Your task to perform on an android device: toggle data saver in the chrome app Image 0: 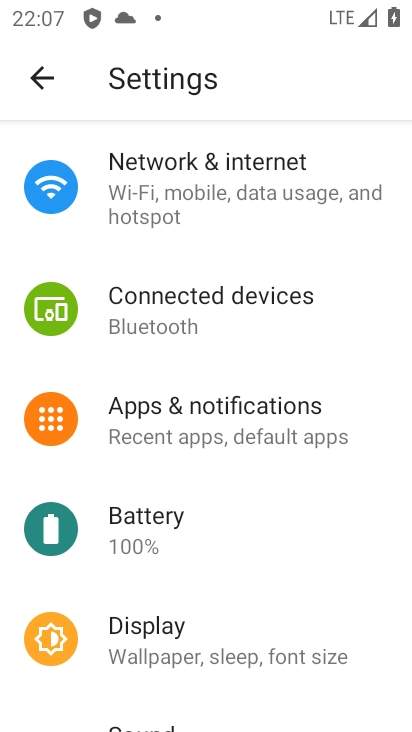
Step 0: press home button
Your task to perform on an android device: toggle data saver in the chrome app Image 1: 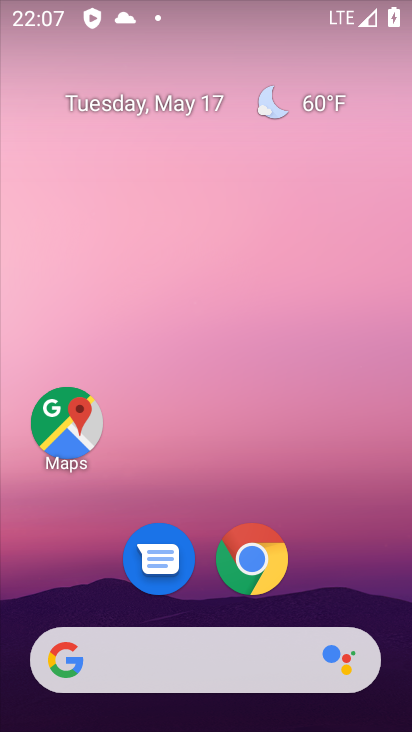
Step 1: click (243, 551)
Your task to perform on an android device: toggle data saver in the chrome app Image 2: 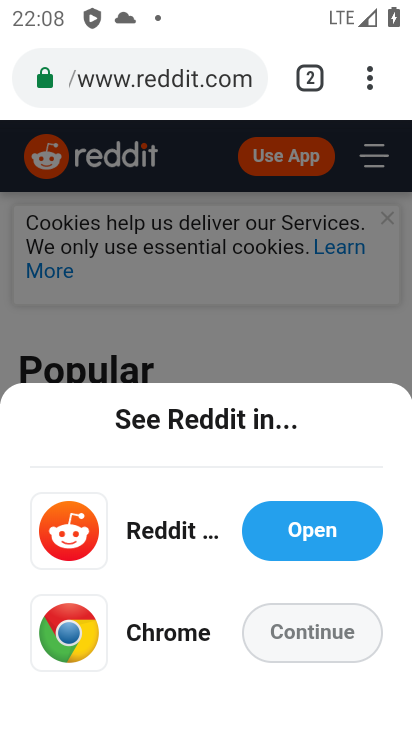
Step 2: drag from (366, 77) to (198, 626)
Your task to perform on an android device: toggle data saver in the chrome app Image 3: 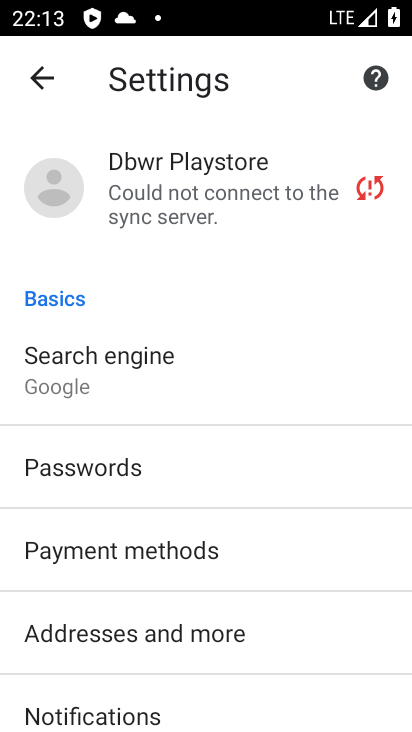
Step 3: drag from (199, 615) to (315, 175)
Your task to perform on an android device: toggle data saver in the chrome app Image 4: 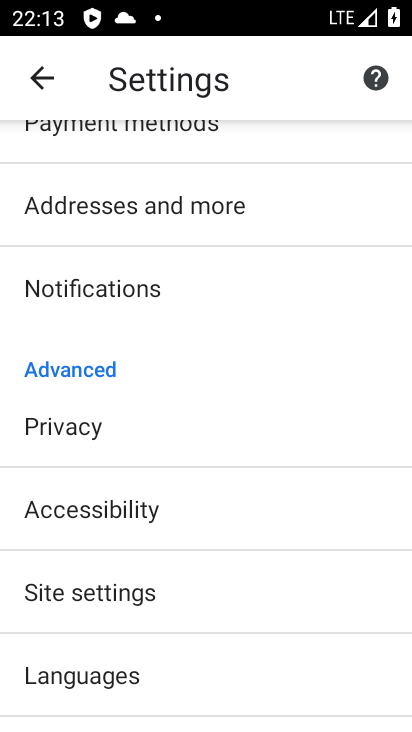
Step 4: drag from (189, 620) to (321, 193)
Your task to perform on an android device: toggle data saver in the chrome app Image 5: 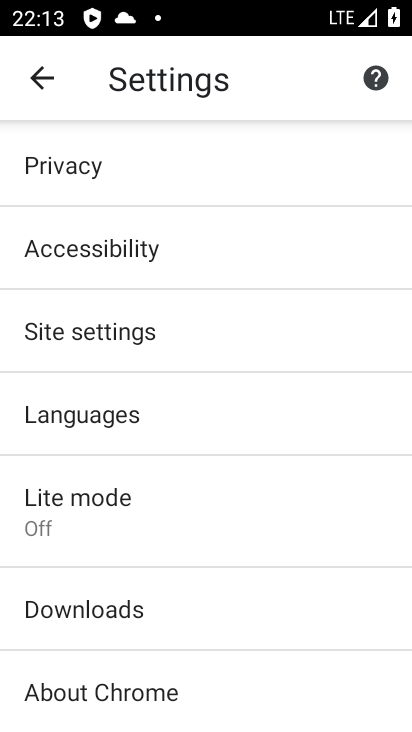
Step 5: click (130, 511)
Your task to perform on an android device: toggle data saver in the chrome app Image 6: 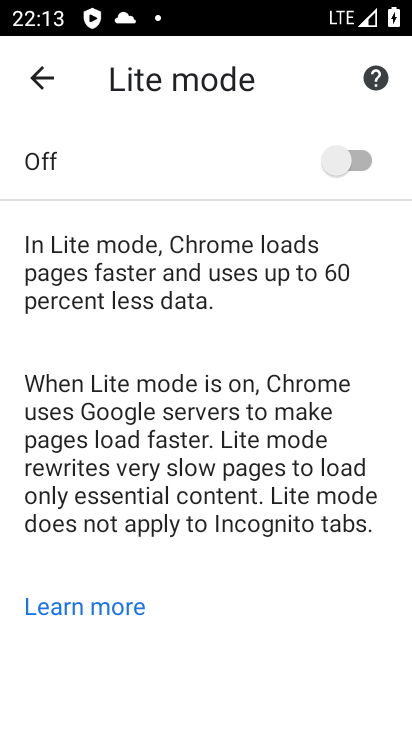
Step 6: click (364, 142)
Your task to perform on an android device: toggle data saver in the chrome app Image 7: 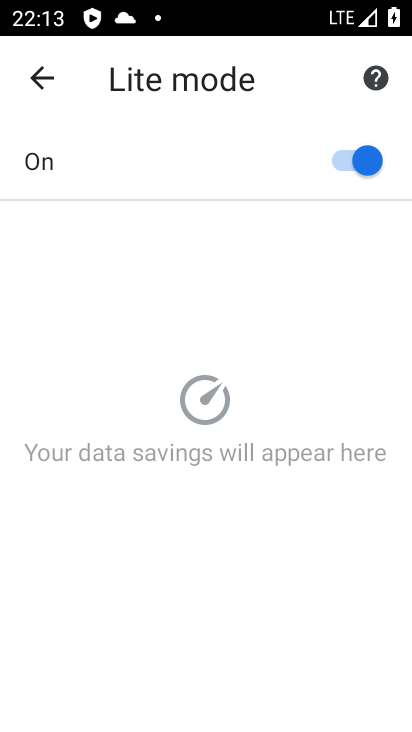
Step 7: task complete